Your task to perform on an android device: turn pop-ups on in chrome Image 0: 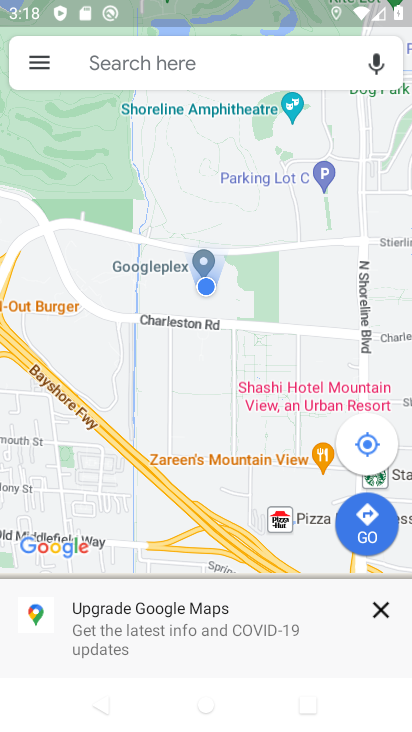
Step 0: press home button
Your task to perform on an android device: turn pop-ups on in chrome Image 1: 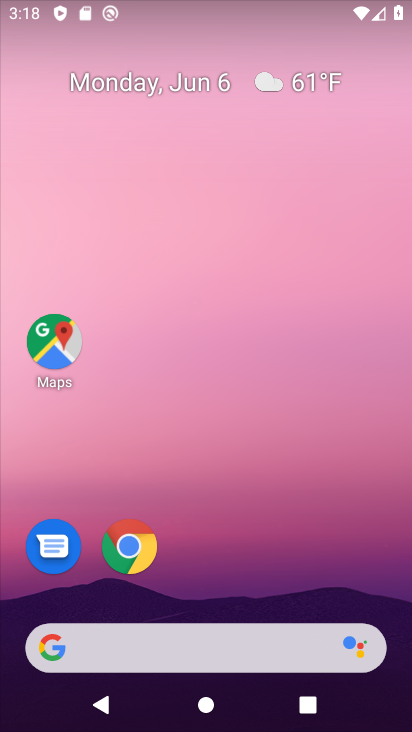
Step 1: click (133, 548)
Your task to perform on an android device: turn pop-ups on in chrome Image 2: 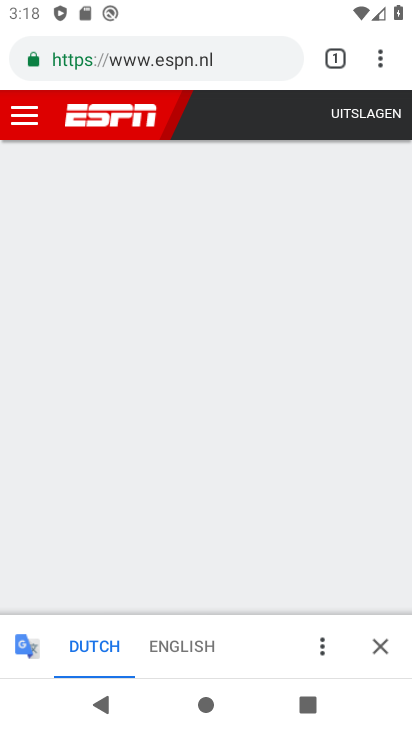
Step 2: drag from (381, 59) to (184, 564)
Your task to perform on an android device: turn pop-ups on in chrome Image 3: 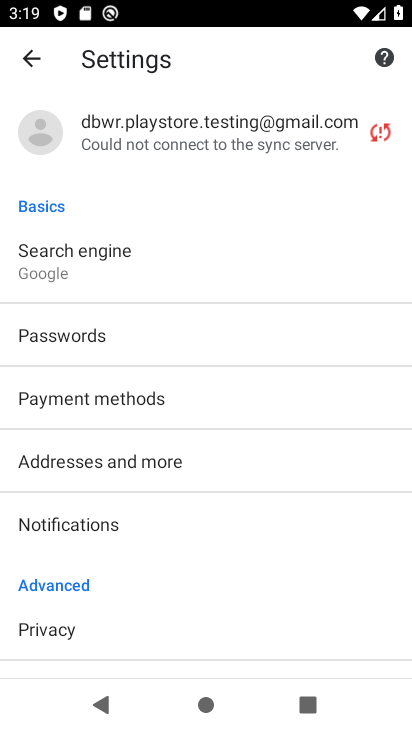
Step 3: drag from (165, 583) to (188, 190)
Your task to perform on an android device: turn pop-ups on in chrome Image 4: 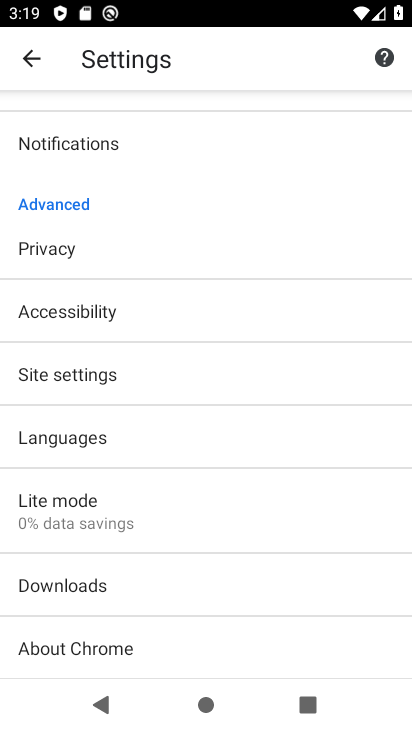
Step 4: click (120, 384)
Your task to perform on an android device: turn pop-ups on in chrome Image 5: 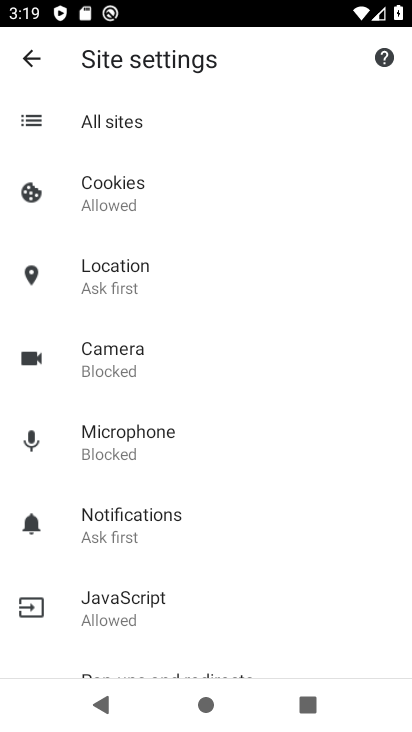
Step 5: drag from (266, 628) to (264, 189)
Your task to perform on an android device: turn pop-ups on in chrome Image 6: 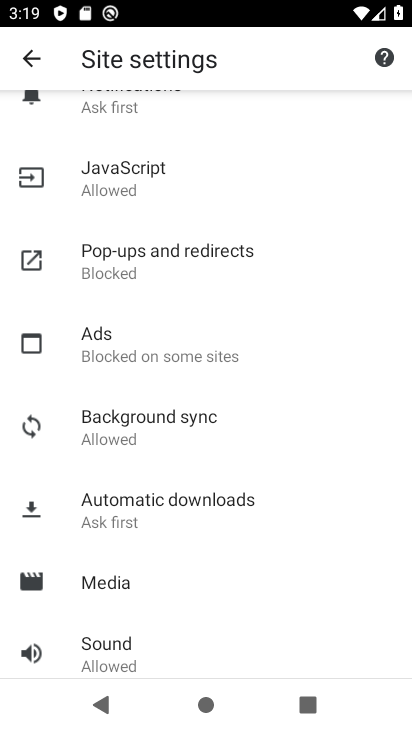
Step 6: click (202, 265)
Your task to perform on an android device: turn pop-ups on in chrome Image 7: 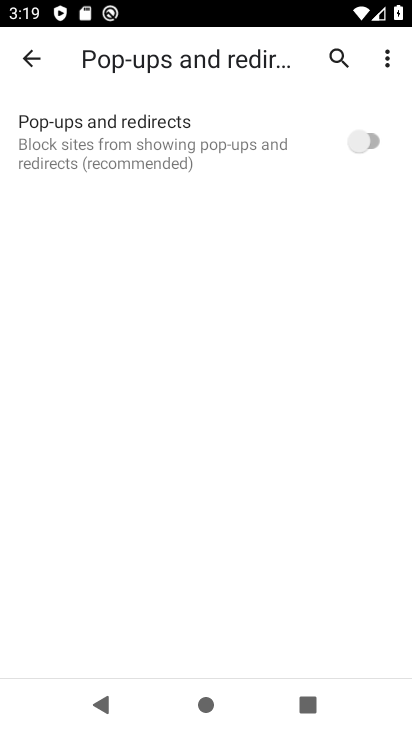
Step 7: click (379, 139)
Your task to perform on an android device: turn pop-ups on in chrome Image 8: 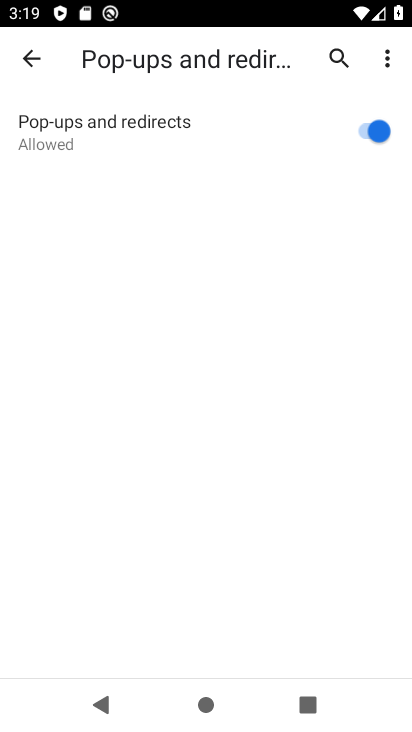
Step 8: task complete